Your task to perform on an android device: find photos in the google photos app Image 0: 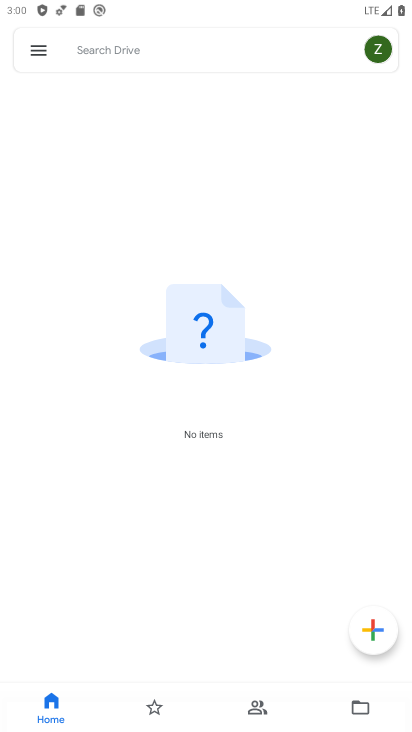
Step 0: press home button
Your task to perform on an android device: find photos in the google photos app Image 1: 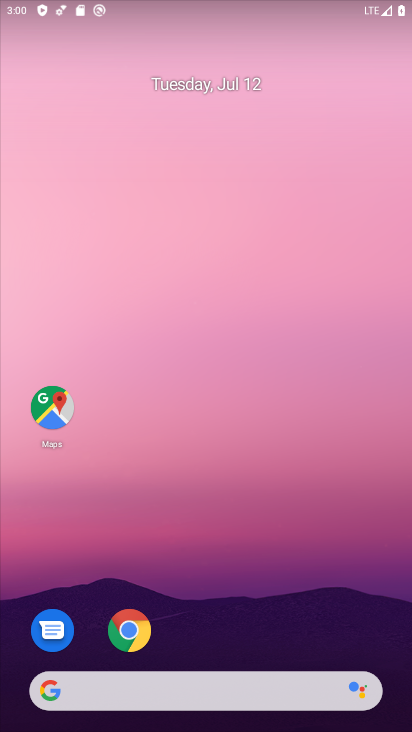
Step 1: drag from (274, 635) to (306, 7)
Your task to perform on an android device: find photos in the google photos app Image 2: 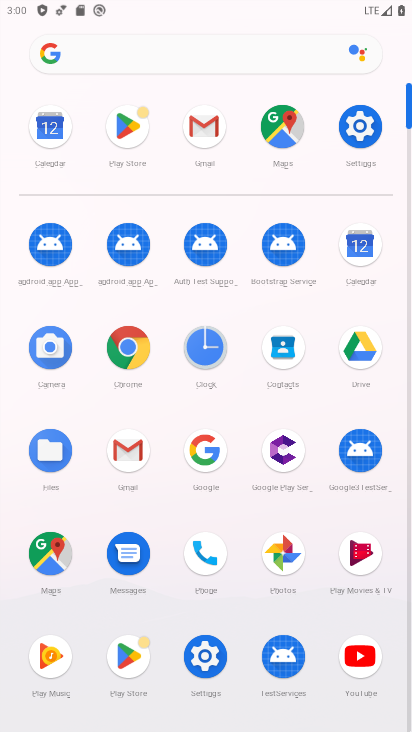
Step 2: click (278, 549)
Your task to perform on an android device: find photos in the google photos app Image 3: 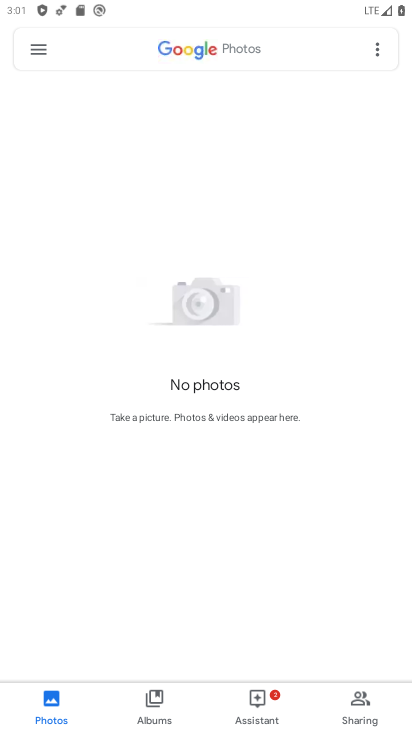
Step 3: task complete